Your task to perform on an android device: open a bookmark in the chrome app Image 0: 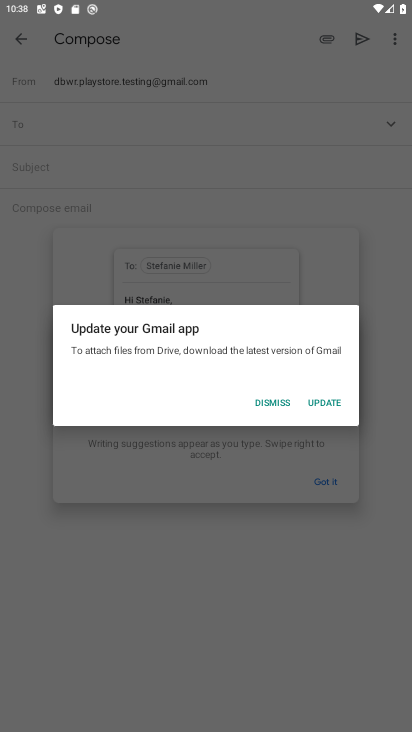
Step 0: press home button
Your task to perform on an android device: open a bookmark in the chrome app Image 1: 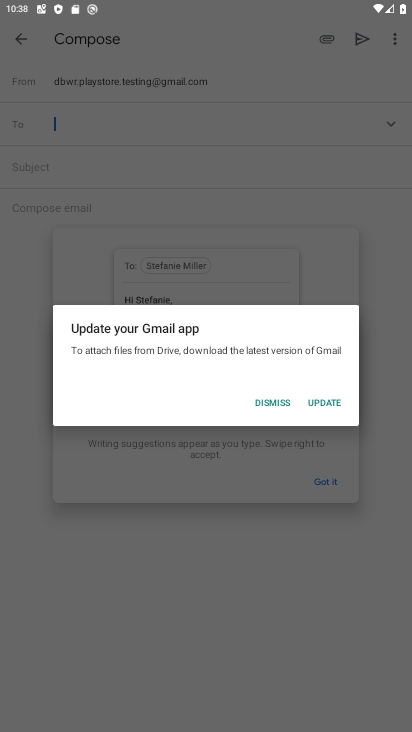
Step 1: press home button
Your task to perform on an android device: open a bookmark in the chrome app Image 2: 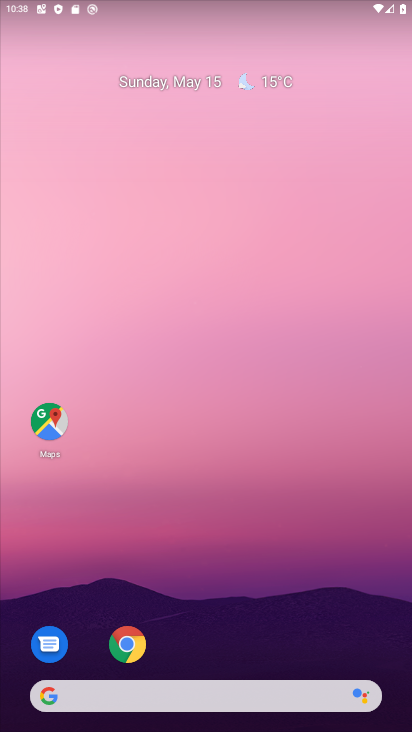
Step 2: click (142, 638)
Your task to perform on an android device: open a bookmark in the chrome app Image 3: 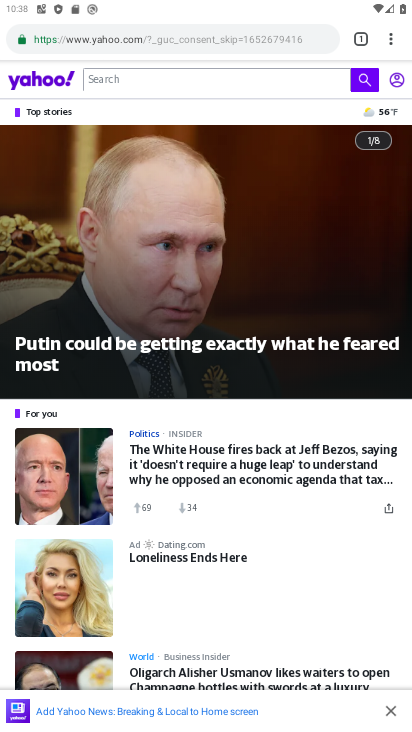
Step 3: click (397, 37)
Your task to perform on an android device: open a bookmark in the chrome app Image 4: 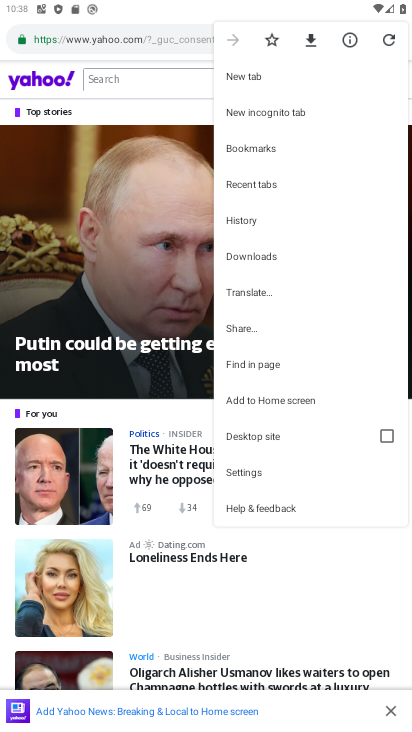
Step 4: click (262, 150)
Your task to perform on an android device: open a bookmark in the chrome app Image 5: 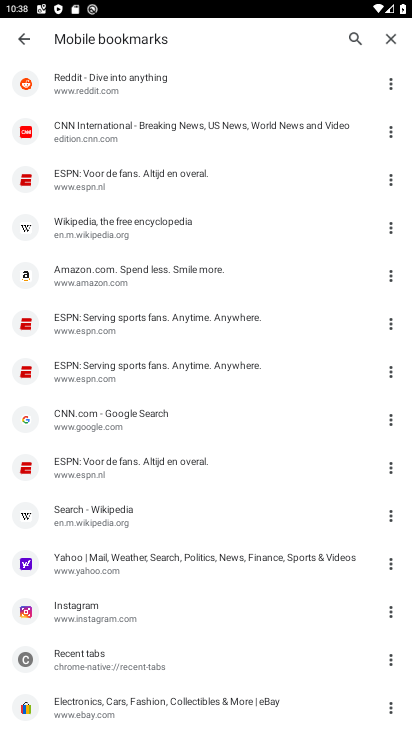
Step 5: click (124, 706)
Your task to perform on an android device: open a bookmark in the chrome app Image 6: 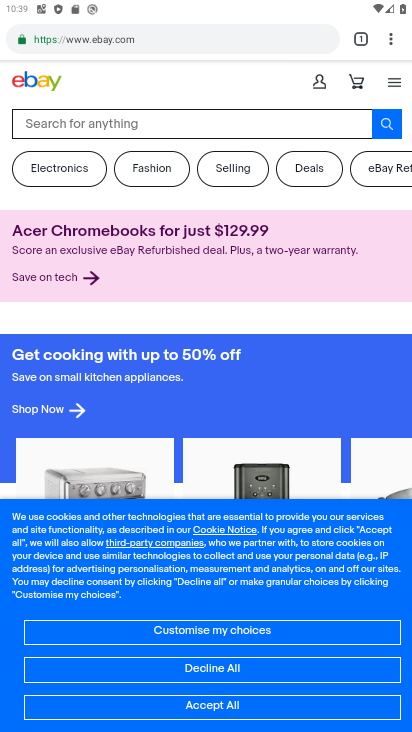
Step 6: task complete